Your task to perform on an android device: turn off priority inbox in the gmail app Image 0: 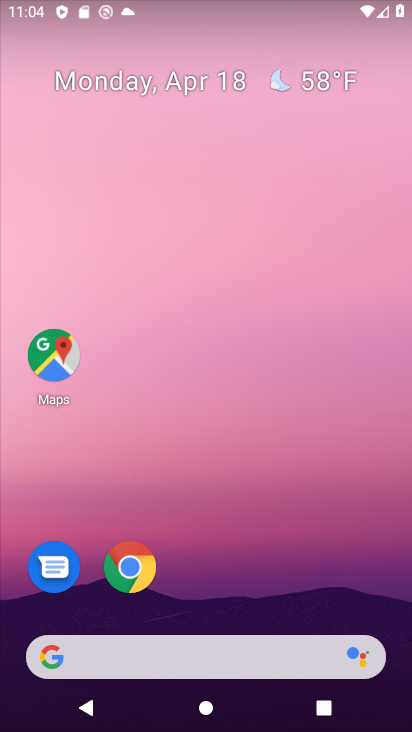
Step 0: drag from (370, 591) to (337, 79)
Your task to perform on an android device: turn off priority inbox in the gmail app Image 1: 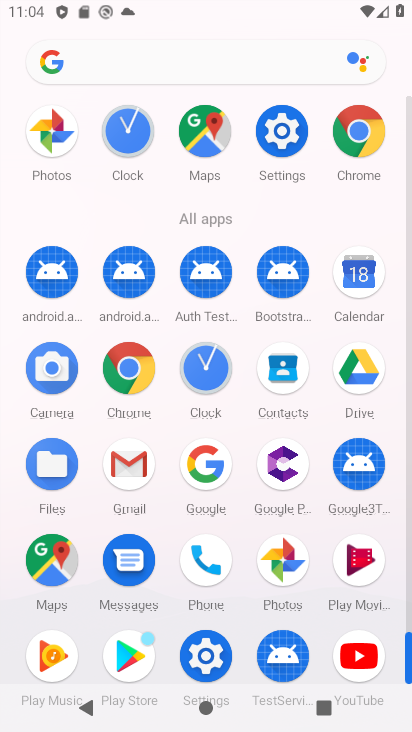
Step 1: click (122, 464)
Your task to perform on an android device: turn off priority inbox in the gmail app Image 2: 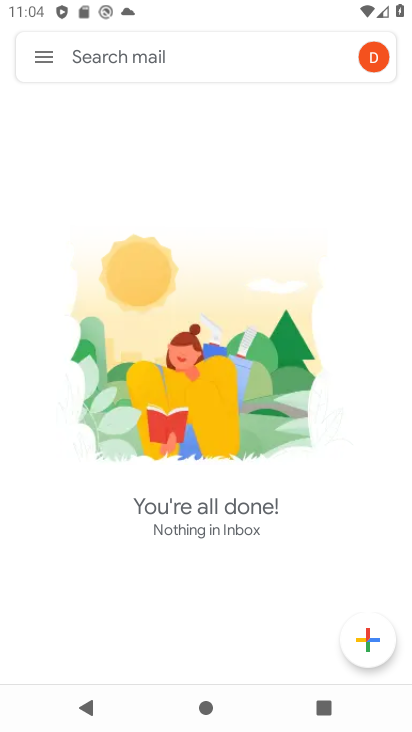
Step 2: click (40, 60)
Your task to perform on an android device: turn off priority inbox in the gmail app Image 3: 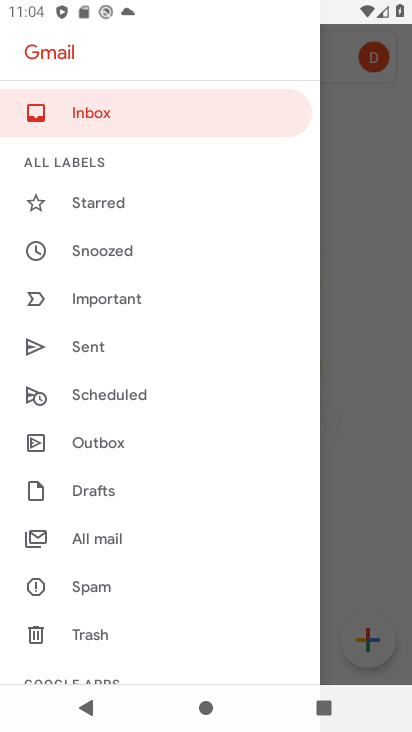
Step 3: drag from (175, 578) to (198, 213)
Your task to perform on an android device: turn off priority inbox in the gmail app Image 4: 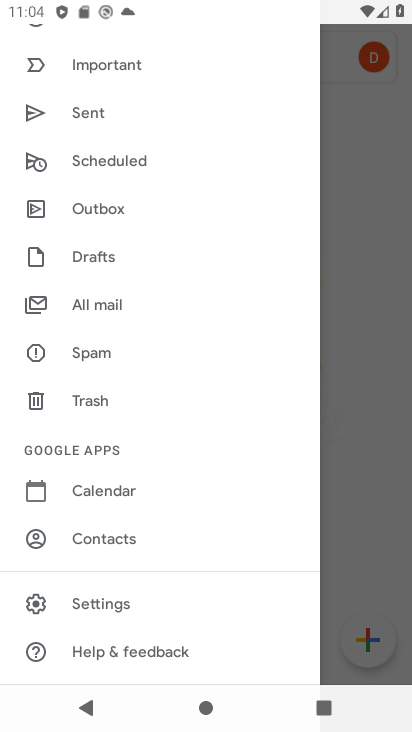
Step 4: click (89, 602)
Your task to perform on an android device: turn off priority inbox in the gmail app Image 5: 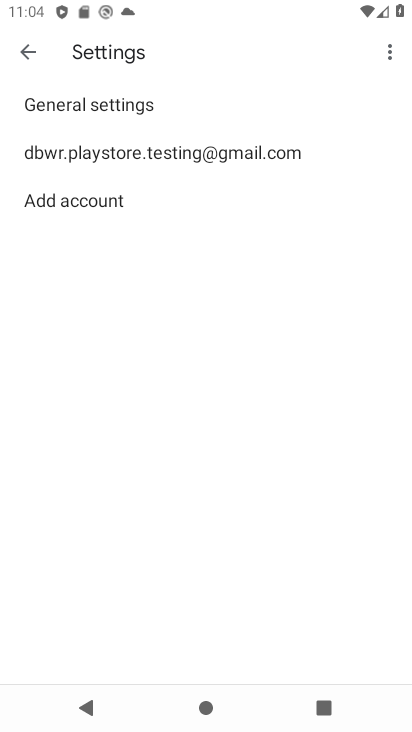
Step 5: click (118, 149)
Your task to perform on an android device: turn off priority inbox in the gmail app Image 6: 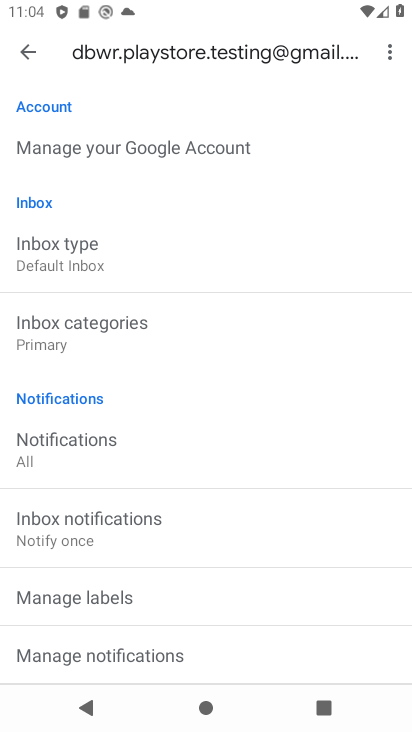
Step 6: click (40, 256)
Your task to perform on an android device: turn off priority inbox in the gmail app Image 7: 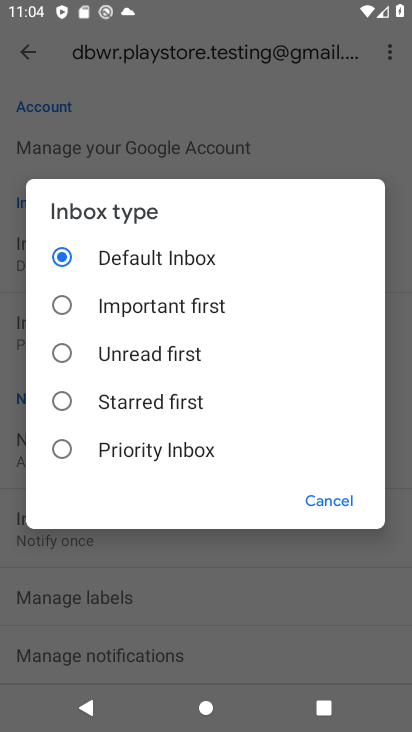
Step 7: task complete